Your task to perform on an android device: Open the Play Movies app and select the watchlist tab. Image 0: 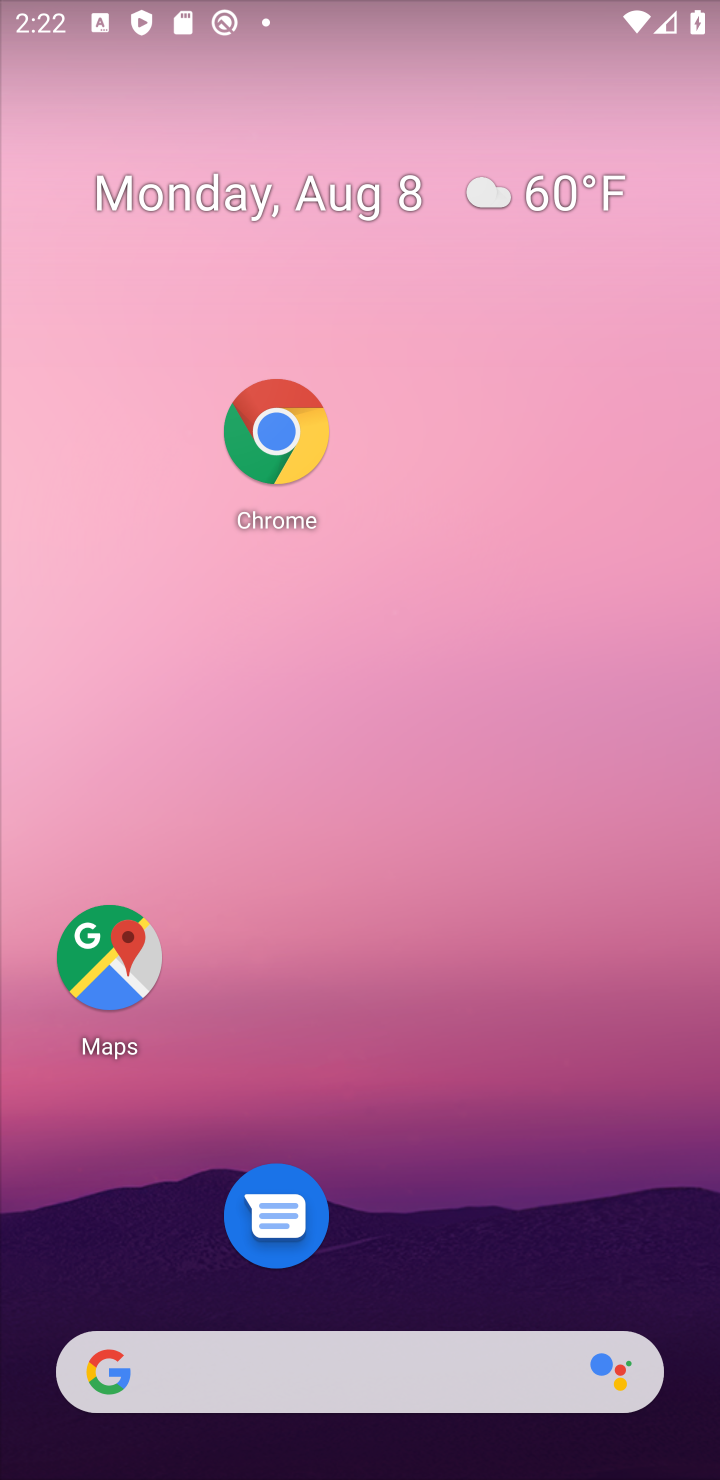
Step 0: drag from (479, 1199) to (321, 147)
Your task to perform on an android device: Open the Play Movies app and select the watchlist tab. Image 1: 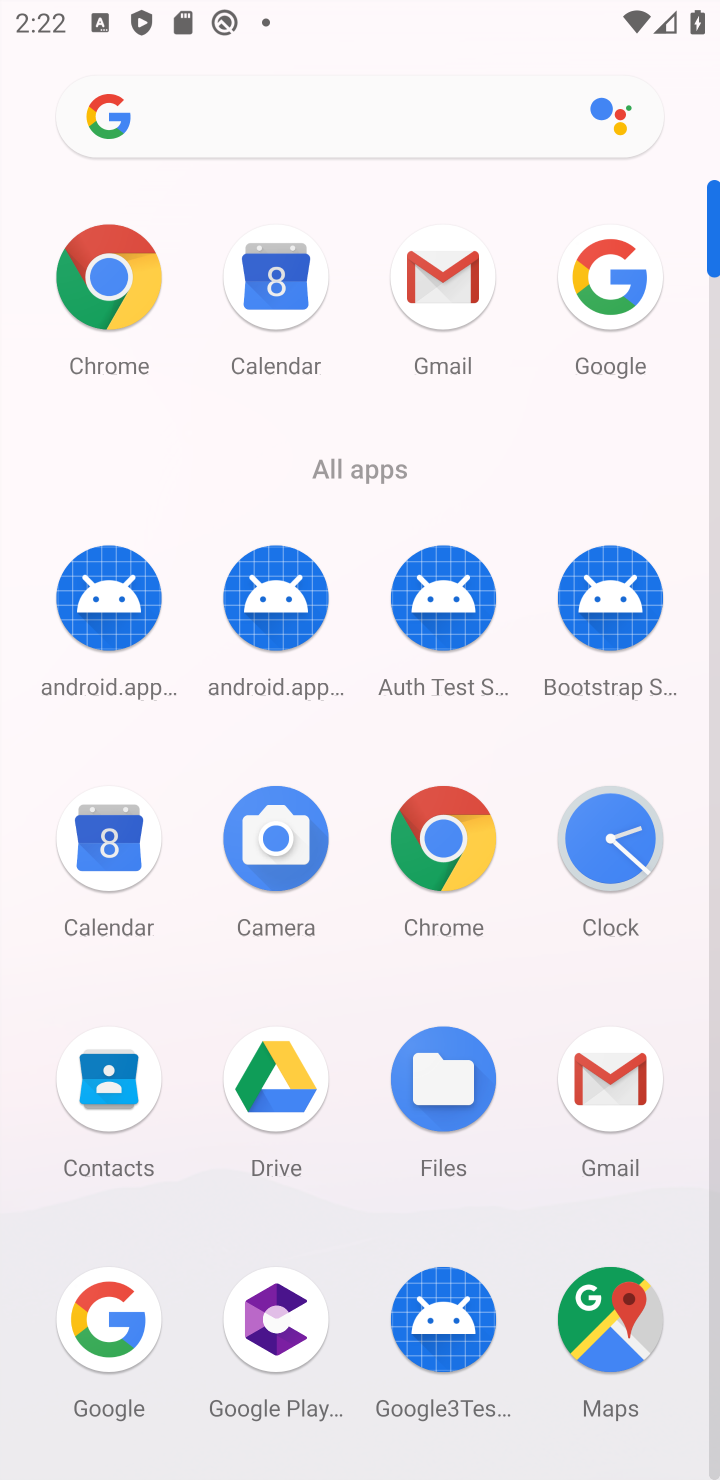
Step 1: drag from (345, 1068) to (177, 373)
Your task to perform on an android device: Open the Play Movies app and select the watchlist tab. Image 2: 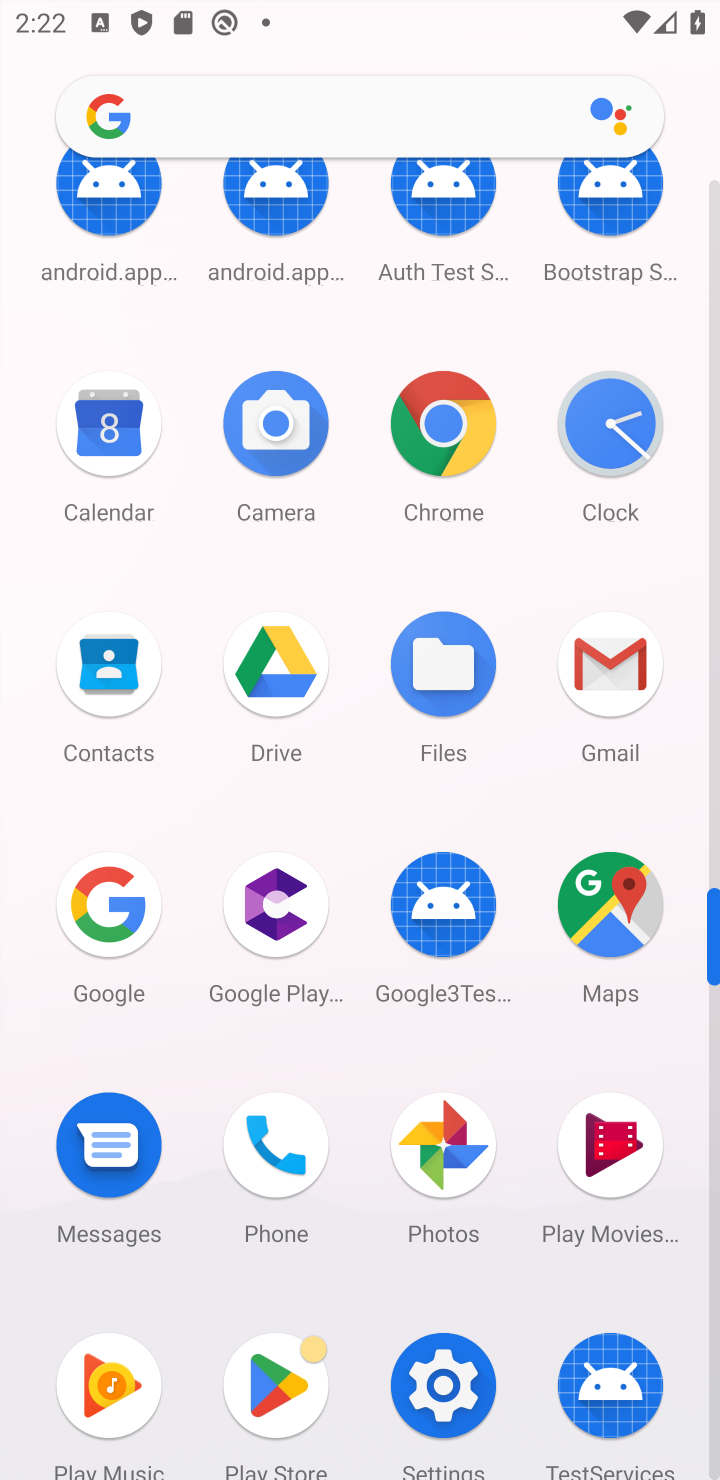
Step 2: click (616, 1194)
Your task to perform on an android device: Open the Play Movies app and select the watchlist tab. Image 3: 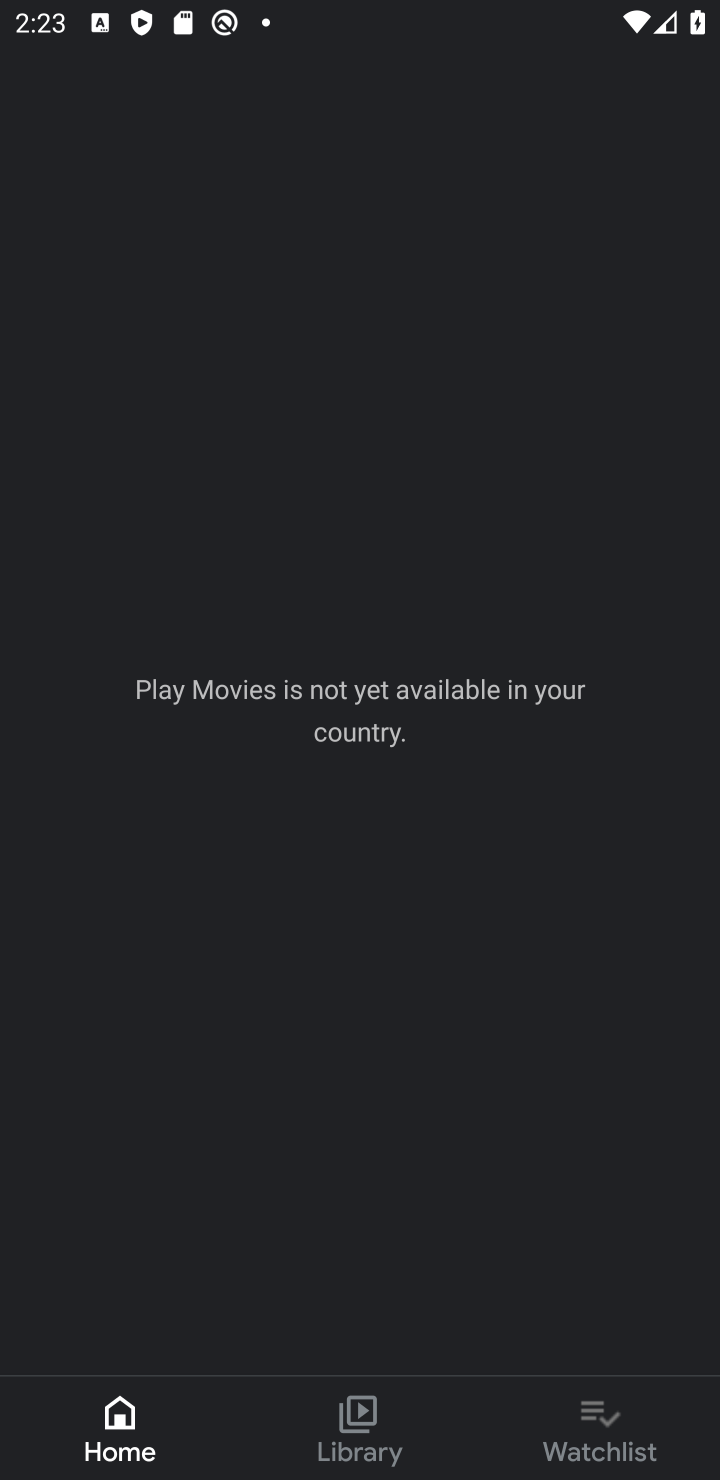
Step 3: click (589, 1445)
Your task to perform on an android device: Open the Play Movies app and select the watchlist tab. Image 4: 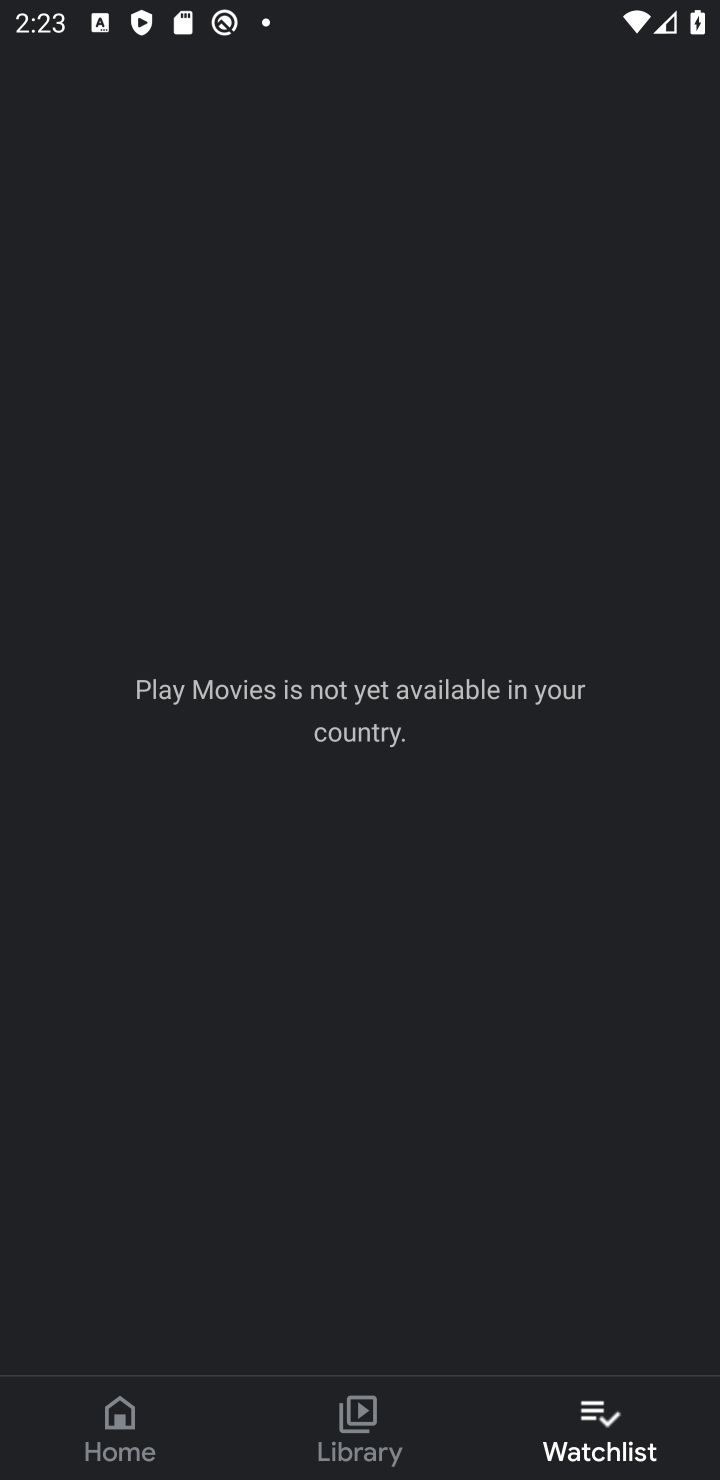
Step 4: task complete